Your task to perform on an android device: Find coffee shops on Maps Image 0: 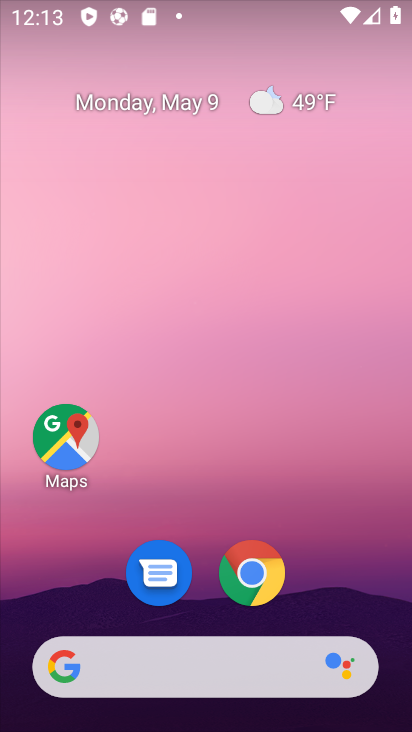
Step 0: click (59, 441)
Your task to perform on an android device: Find coffee shops on Maps Image 1: 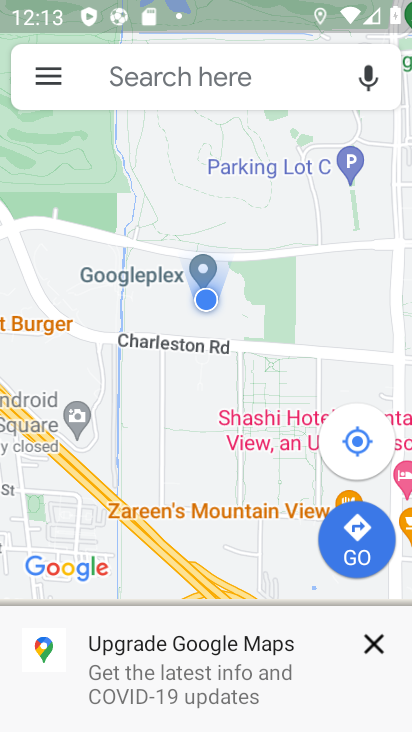
Step 1: click (221, 78)
Your task to perform on an android device: Find coffee shops on Maps Image 2: 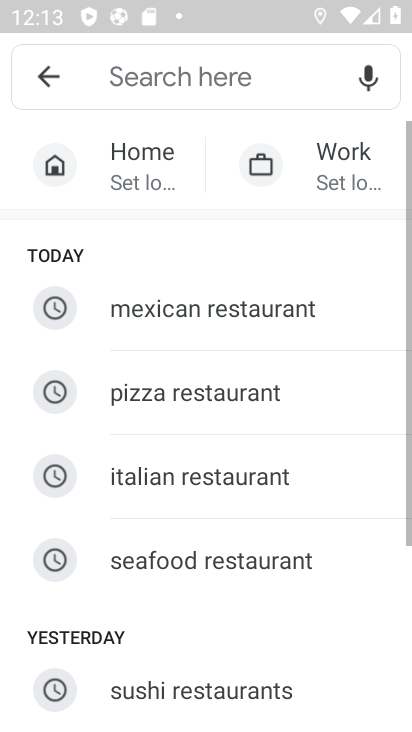
Step 2: click (136, 81)
Your task to perform on an android device: Find coffee shops on Maps Image 3: 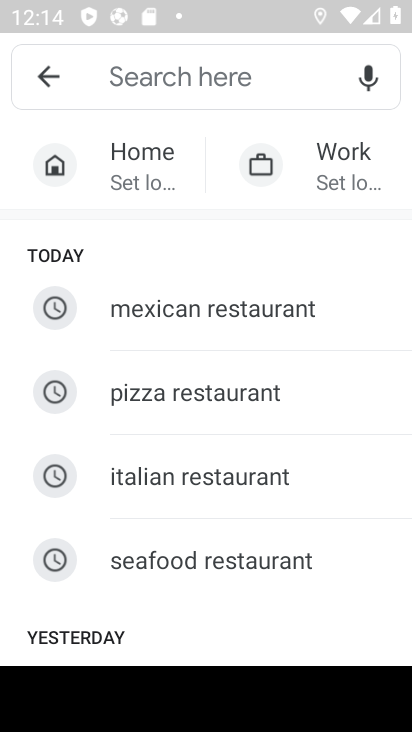
Step 3: type "coffee"
Your task to perform on an android device: Find coffee shops on Maps Image 4: 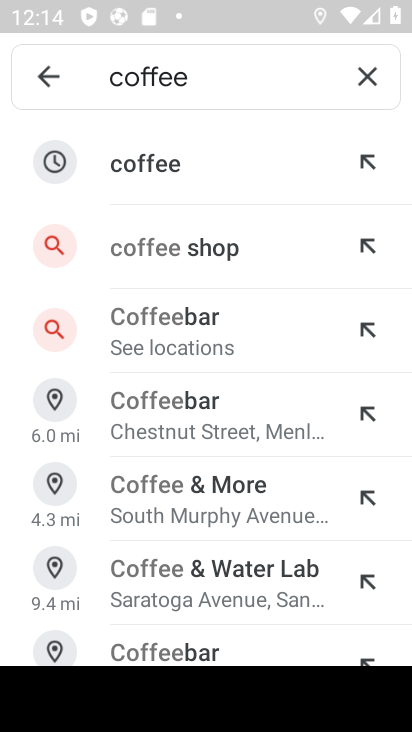
Step 4: click (238, 259)
Your task to perform on an android device: Find coffee shops on Maps Image 5: 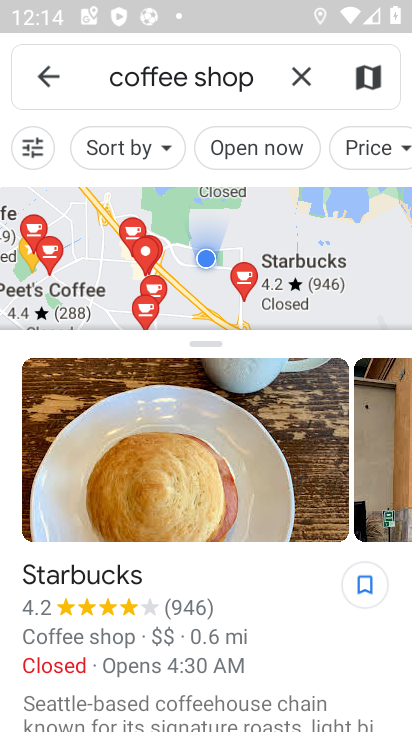
Step 5: task complete